Your task to perform on an android device: Search for Italian restaurants on Maps Image 0: 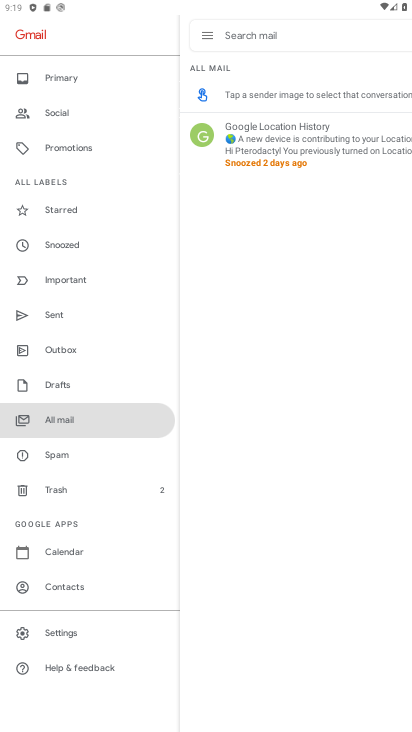
Step 0: press home button
Your task to perform on an android device: Search for Italian restaurants on Maps Image 1: 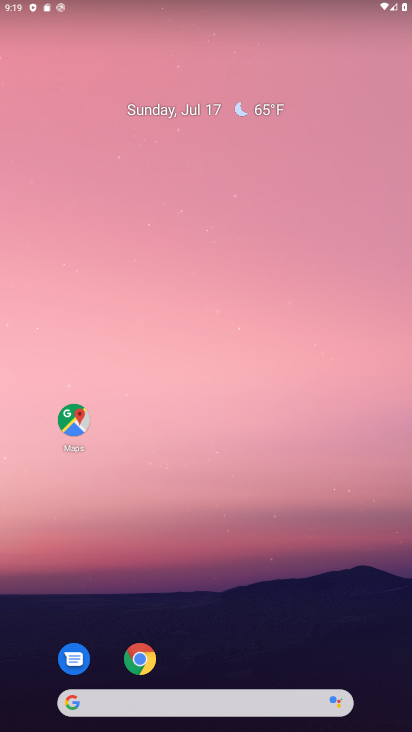
Step 1: click (72, 440)
Your task to perform on an android device: Search for Italian restaurants on Maps Image 2: 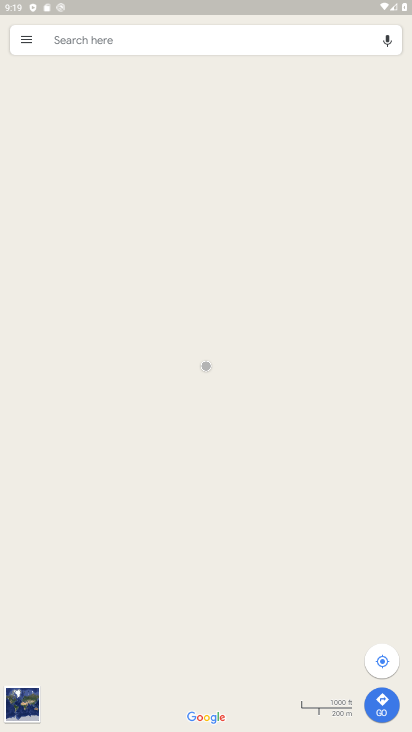
Step 2: click (197, 45)
Your task to perform on an android device: Search for Italian restaurants on Maps Image 3: 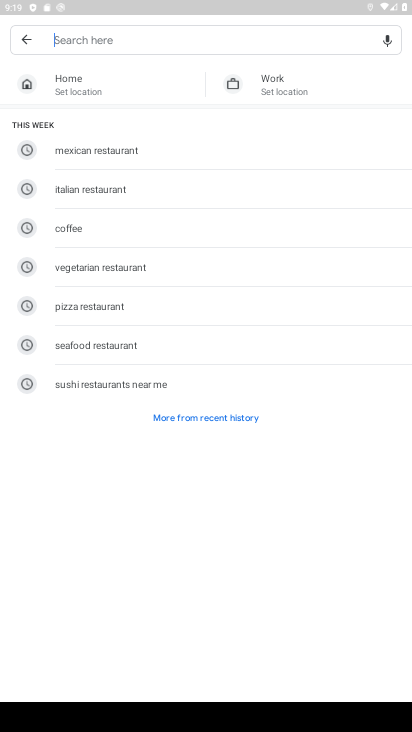
Step 3: type "it"
Your task to perform on an android device: Search for Italian restaurants on Maps Image 4: 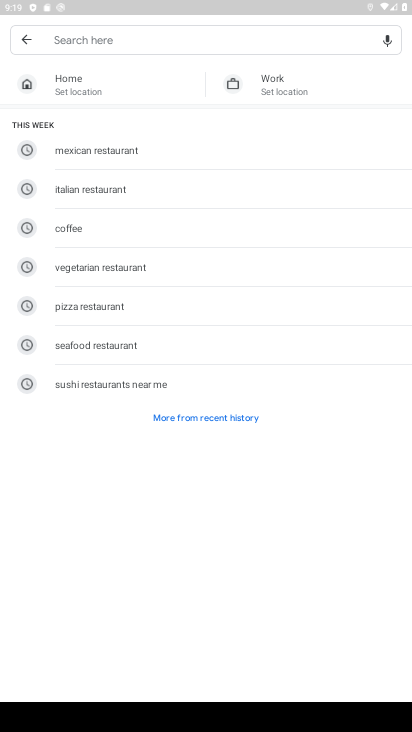
Step 4: click (222, 196)
Your task to perform on an android device: Search for Italian restaurants on Maps Image 5: 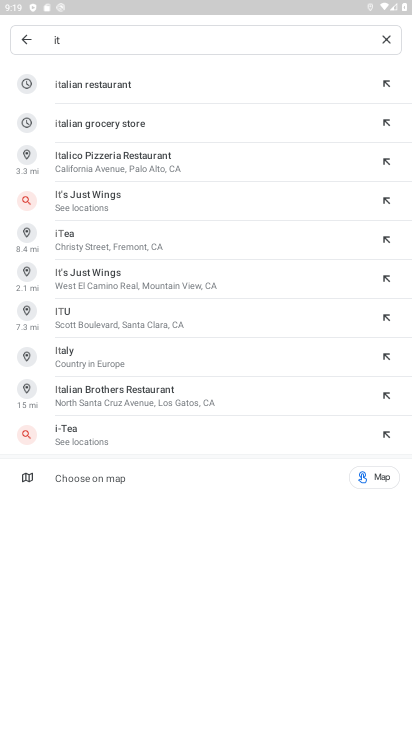
Step 5: click (186, 91)
Your task to perform on an android device: Search for Italian restaurants on Maps Image 6: 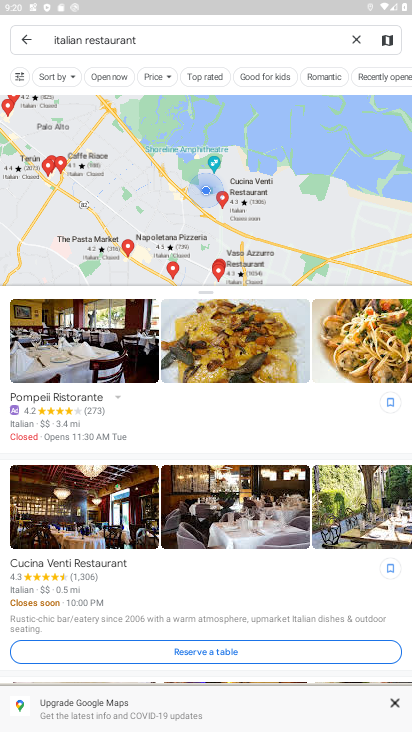
Step 6: task complete